Your task to perform on an android device: allow cookies in the chrome app Image 0: 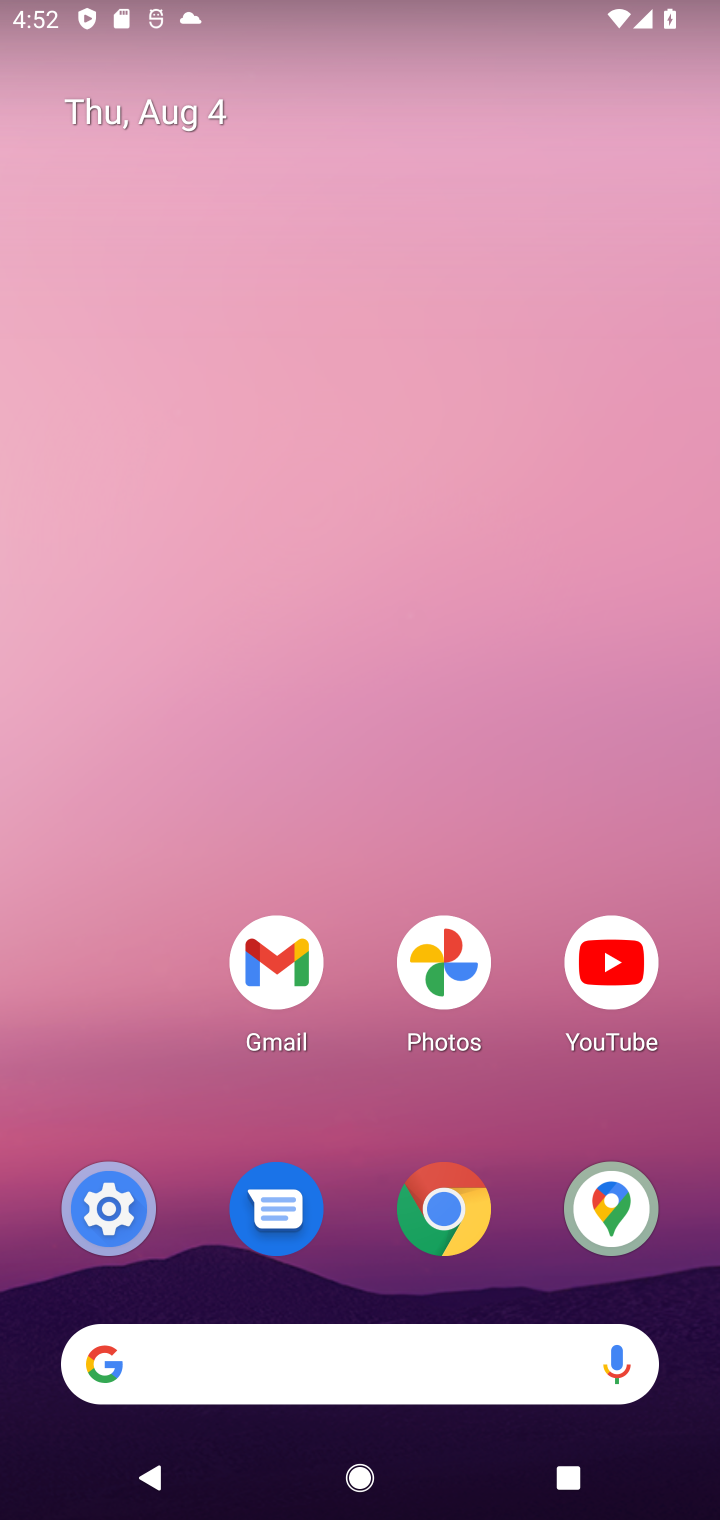
Step 0: click (449, 1203)
Your task to perform on an android device: allow cookies in the chrome app Image 1: 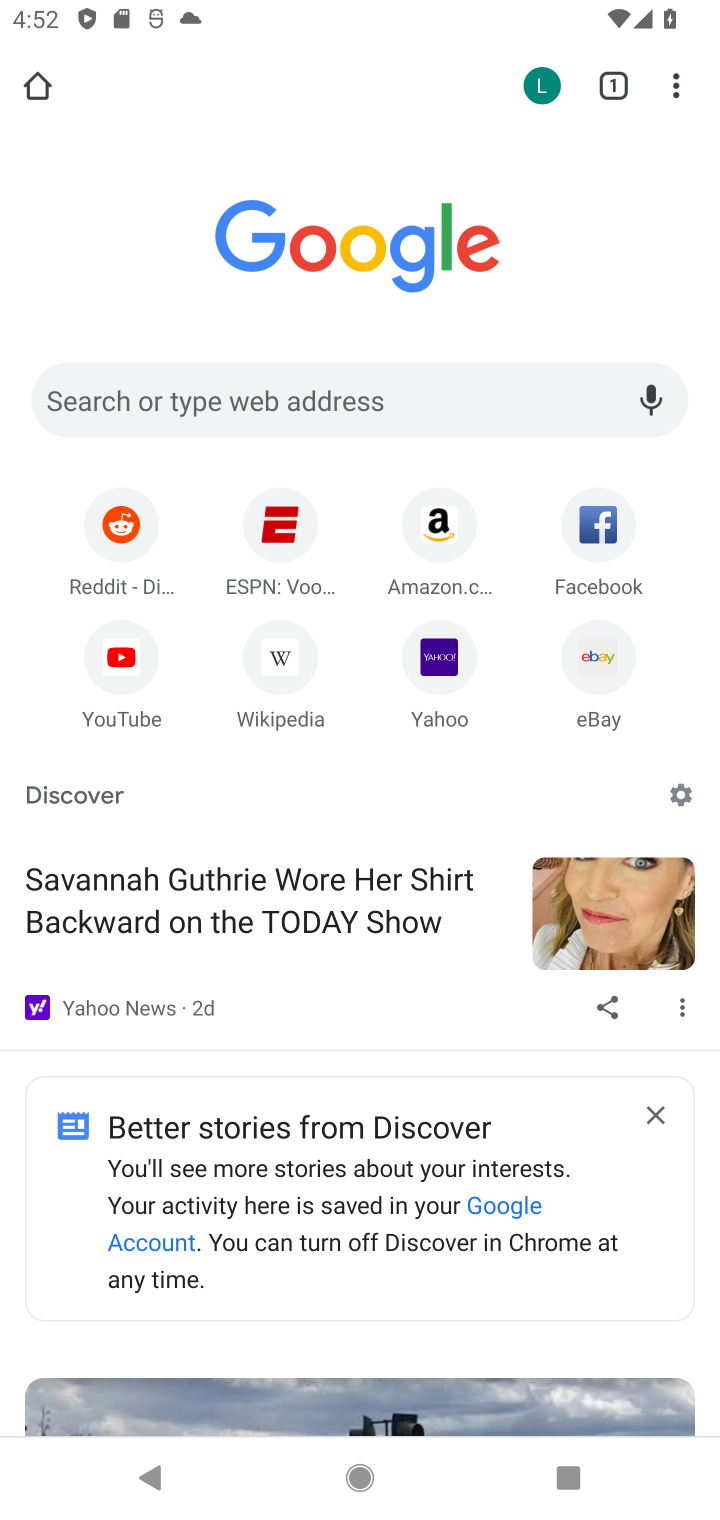
Step 1: click (678, 104)
Your task to perform on an android device: allow cookies in the chrome app Image 2: 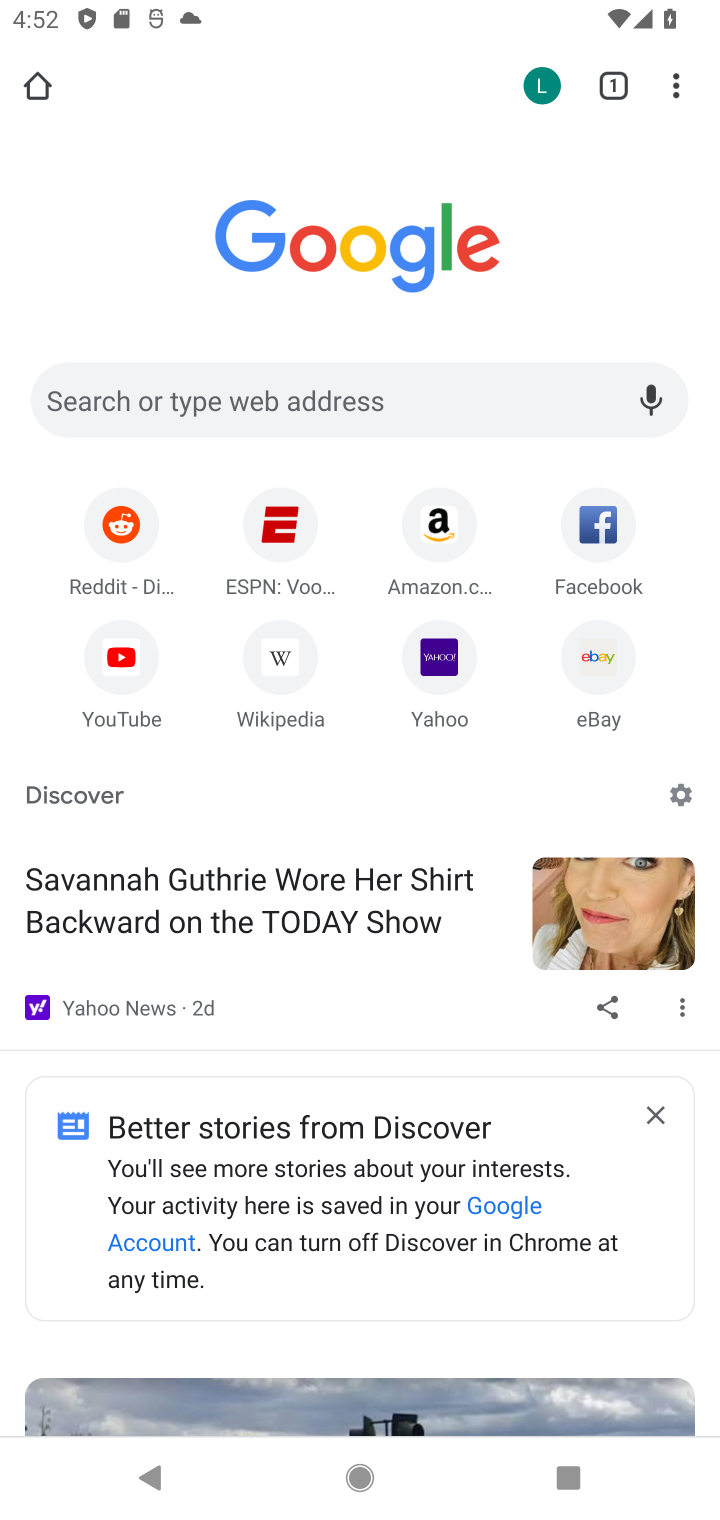
Step 2: click (678, 82)
Your task to perform on an android device: allow cookies in the chrome app Image 3: 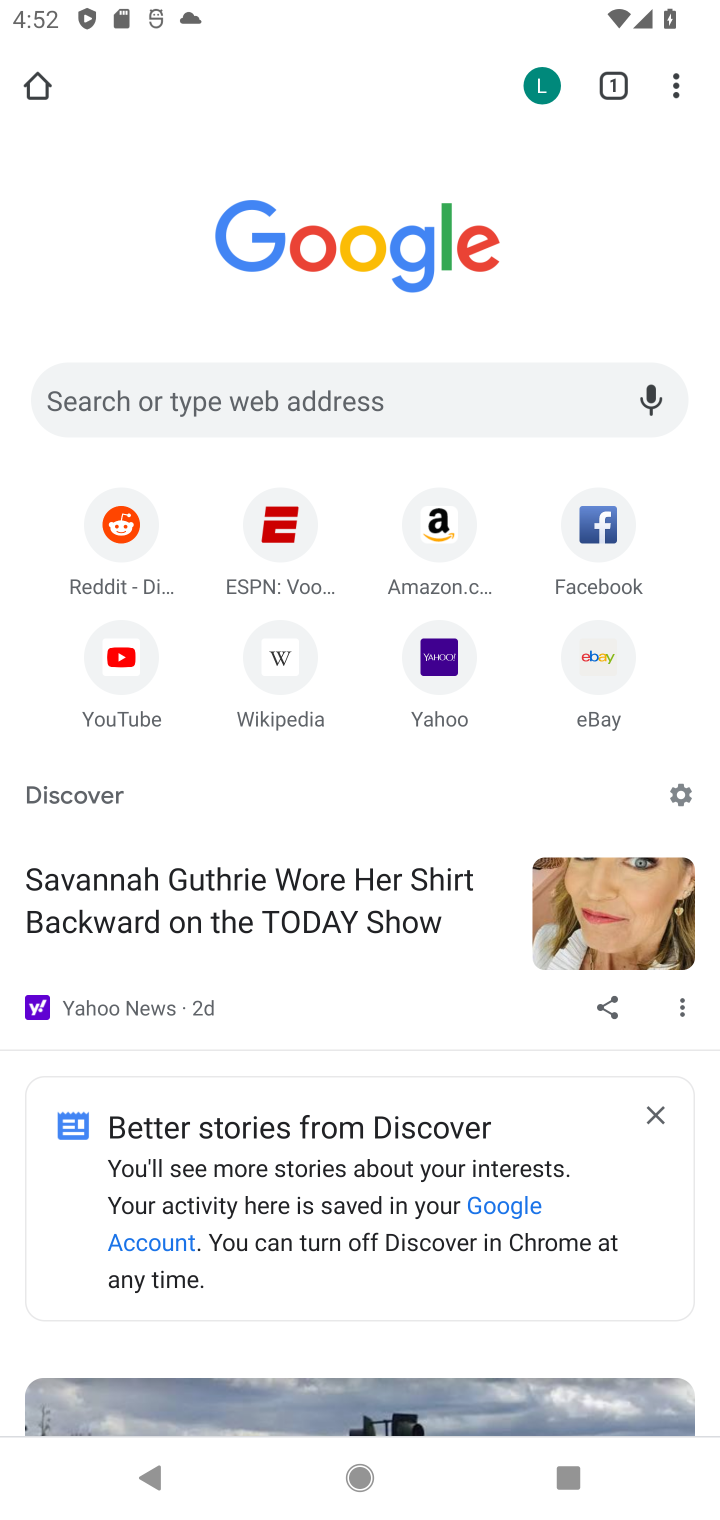
Step 3: click (678, 93)
Your task to perform on an android device: allow cookies in the chrome app Image 4: 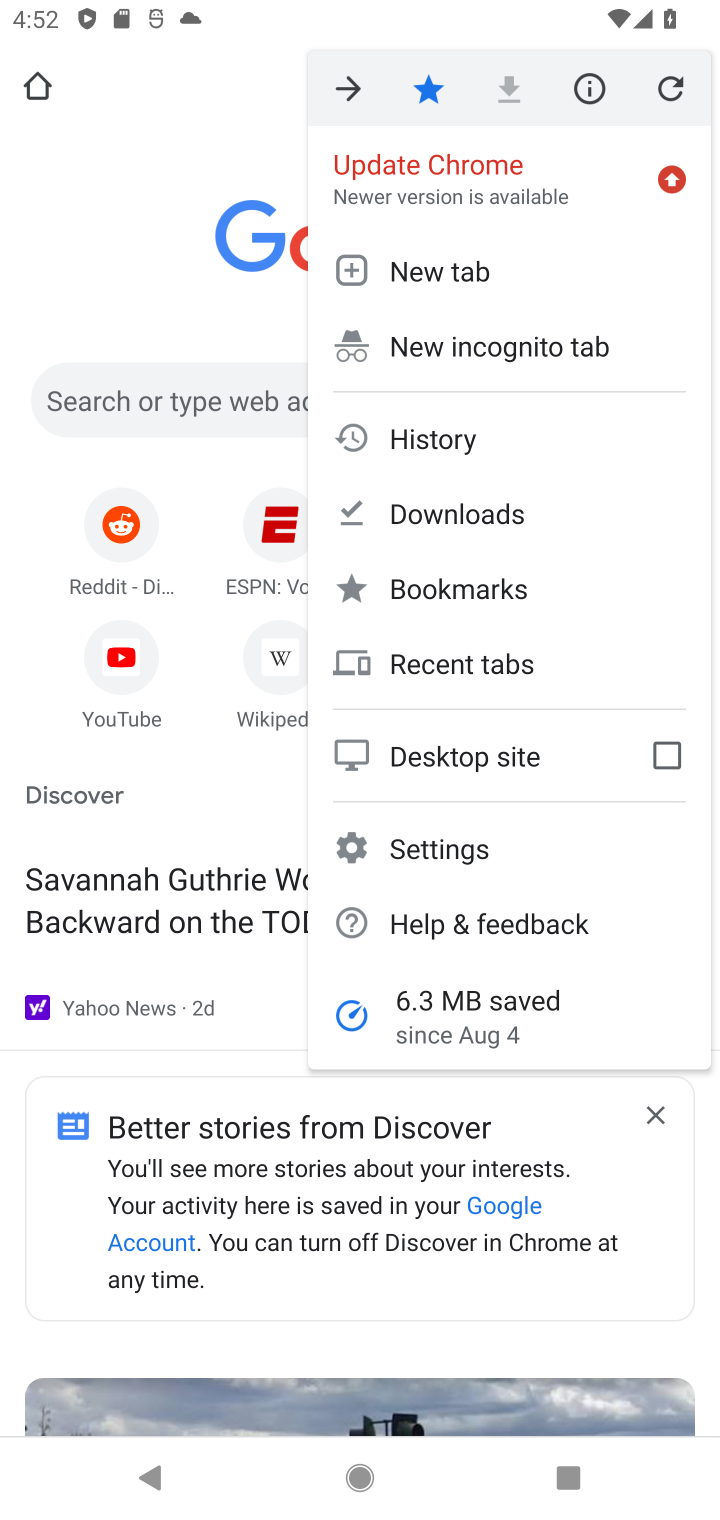
Step 4: click (469, 846)
Your task to perform on an android device: allow cookies in the chrome app Image 5: 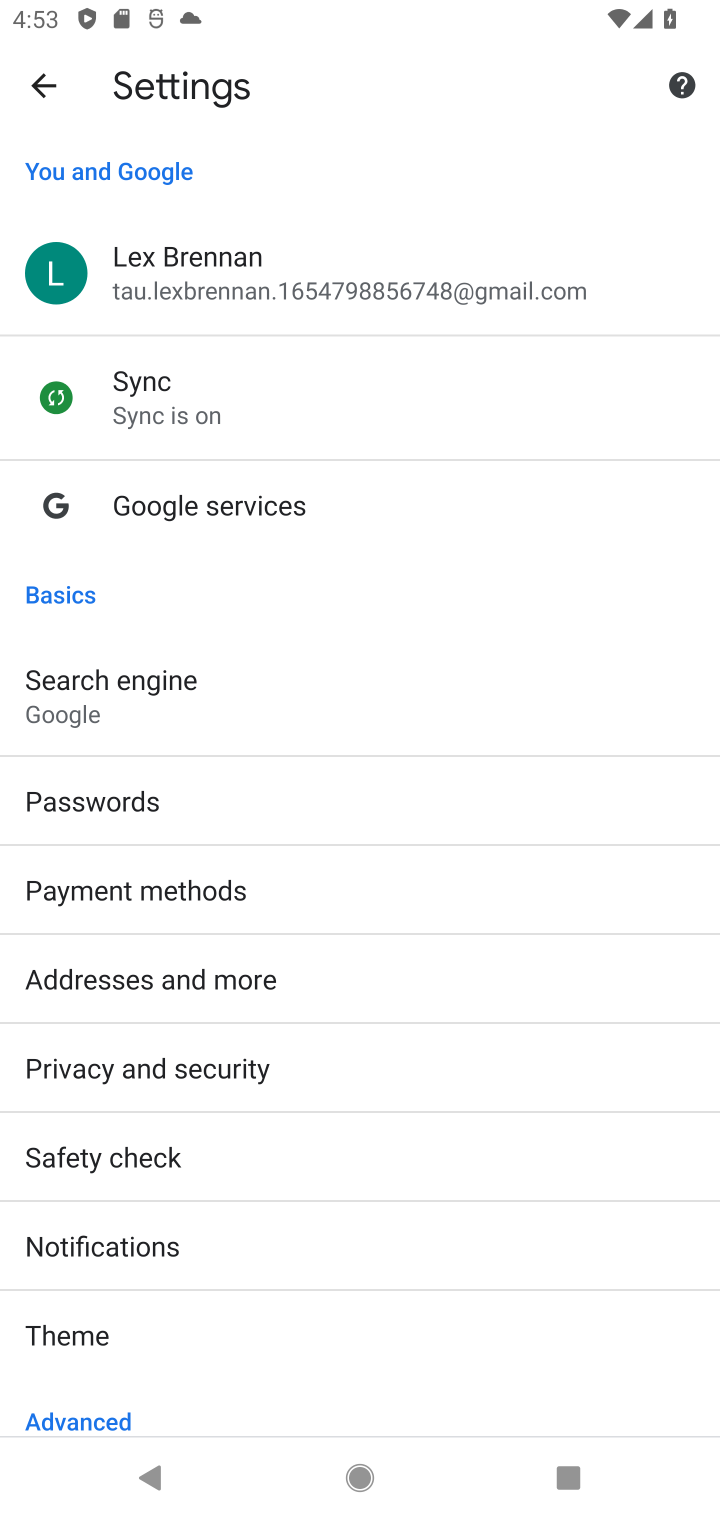
Step 5: drag from (216, 1286) to (255, 379)
Your task to perform on an android device: allow cookies in the chrome app Image 6: 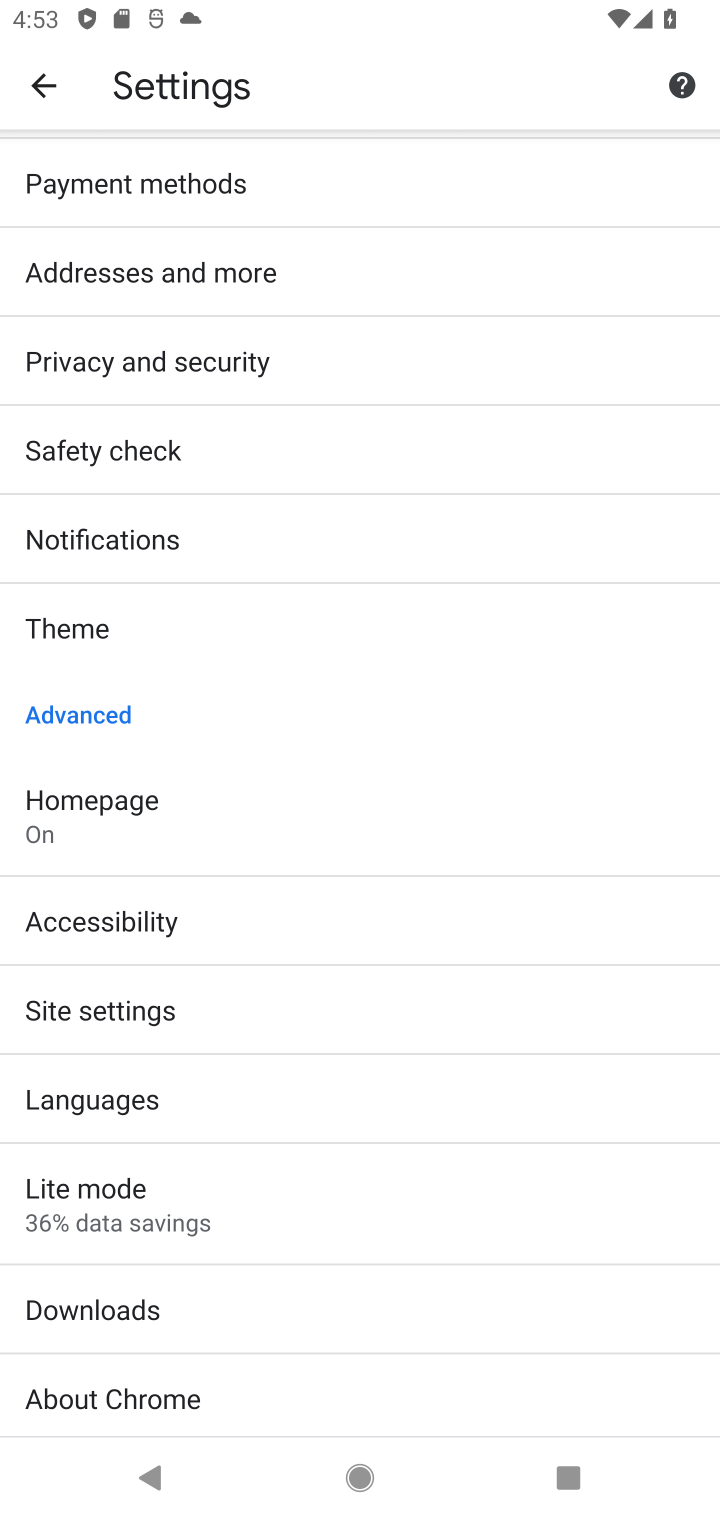
Step 6: drag from (251, 1309) to (320, 703)
Your task to perform on an android device: allow cookies in the chrome app Image 7: 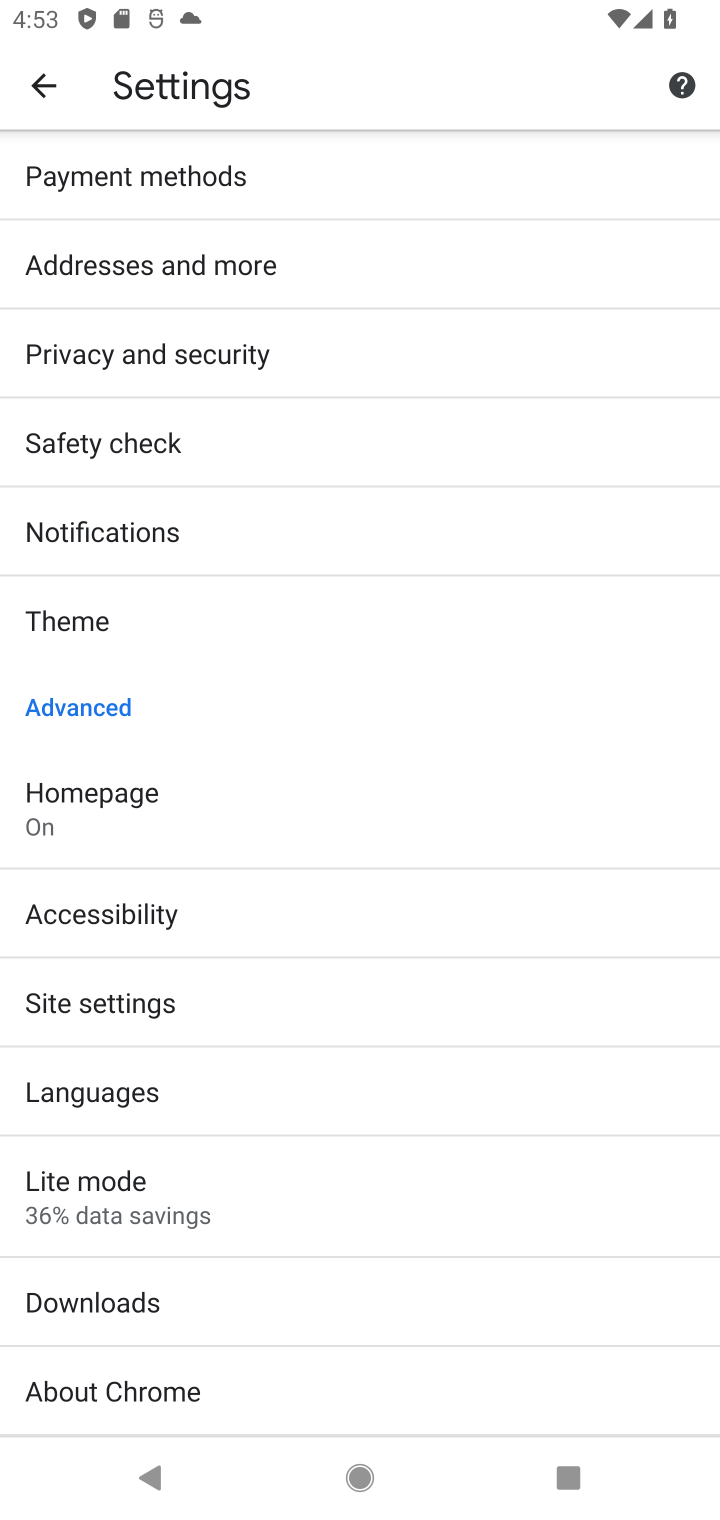
Step 7: click (164, 1007)
Your task to perform on an android device: allow cookies in the chrome app Image 8: 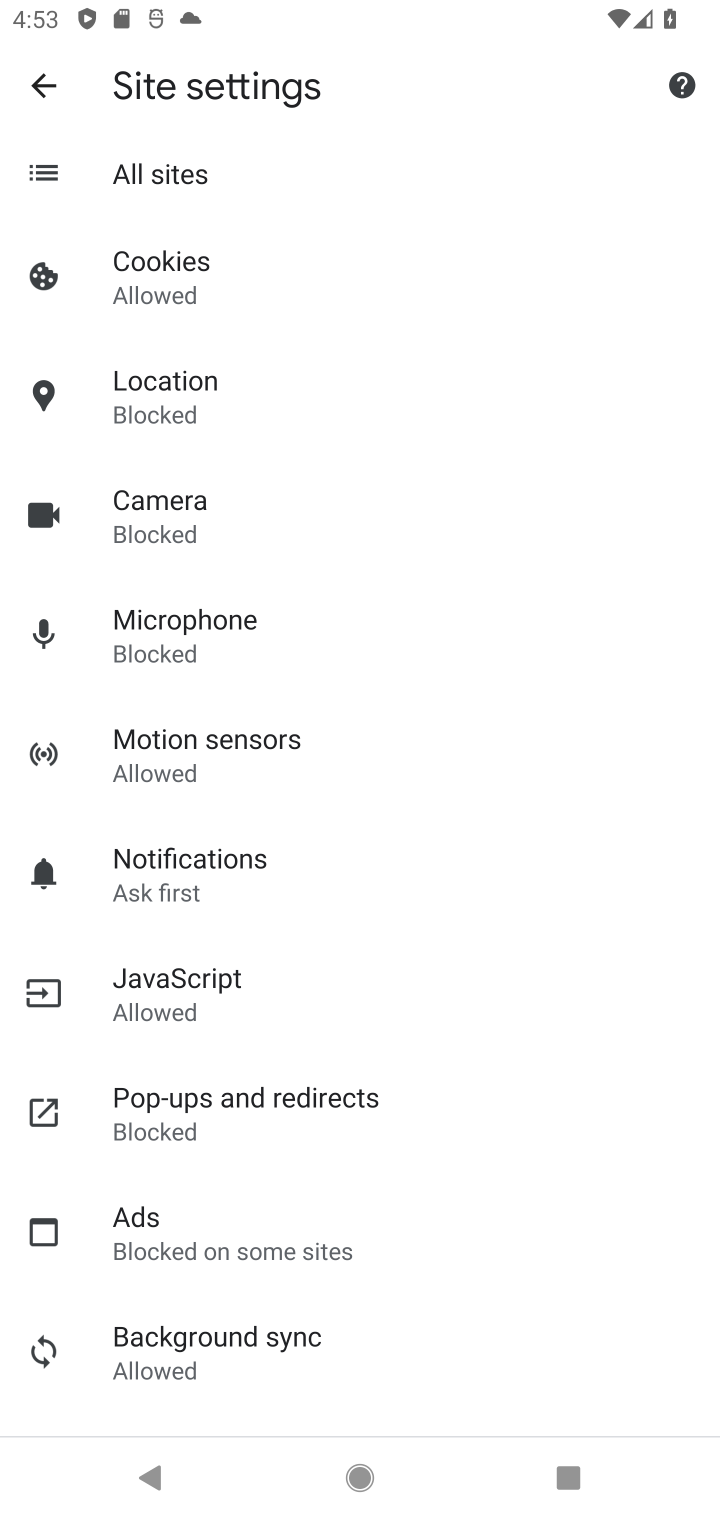
Step 8: click (200, 282)
Your task to perform on an android device: allow cookies in the chrome app Image 9: 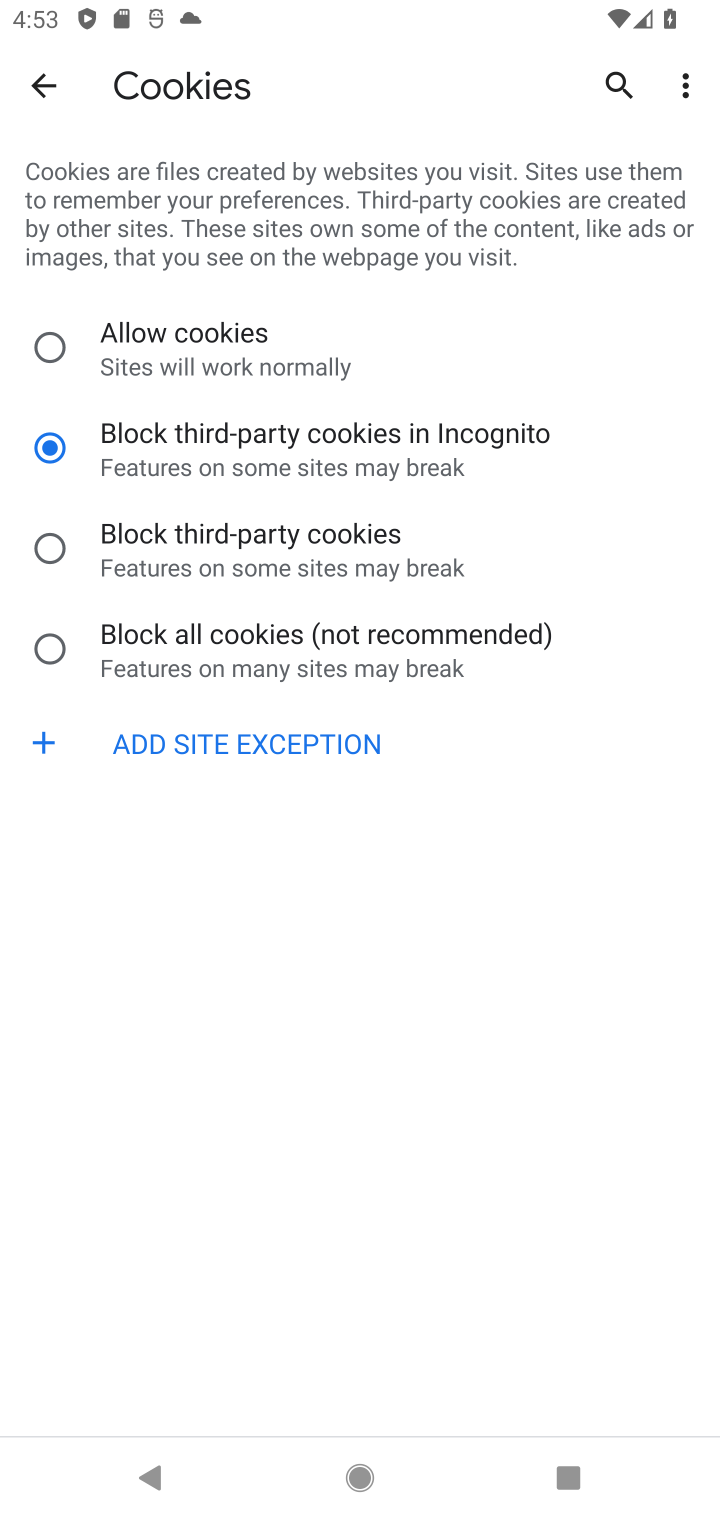
Step 9: click (46, 353)
Your task to perform on an android device: allow cookies in the chrome app Image 10: 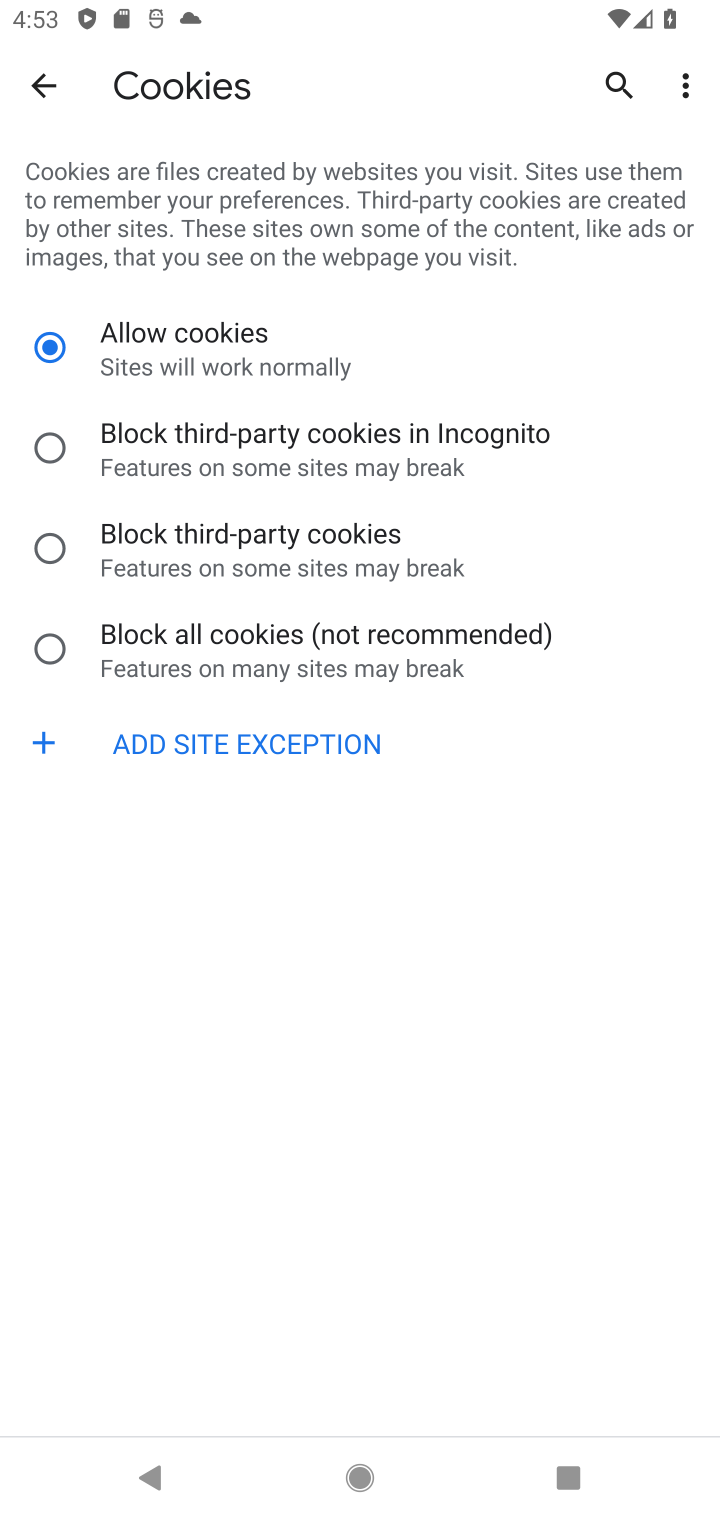
Step 10: task complete